Your task to perform on an android device: Open my contact list Image 0: 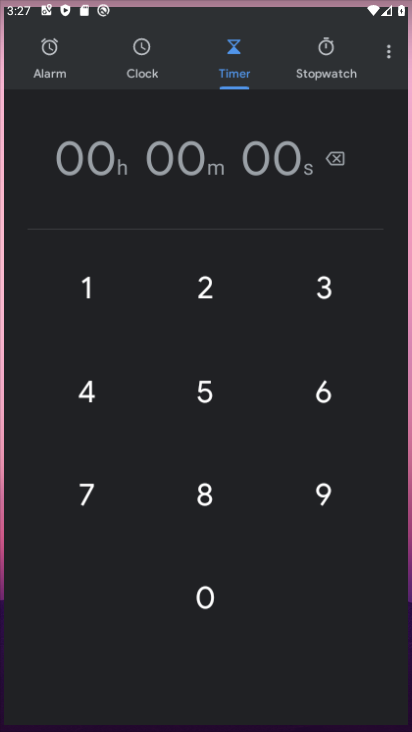
Step 0: drag from (224, 638) to (286, 336)
Your task to perform on an android device: Open my contact list Image 1: 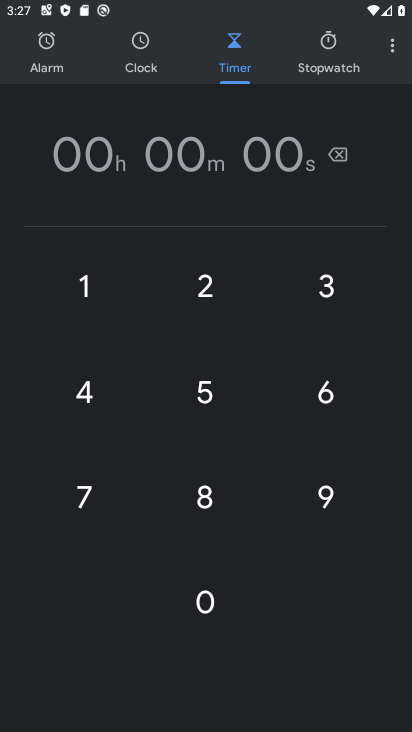
Step 1: press home button
Your task to perform on an android device: Open my contact list Image 2: 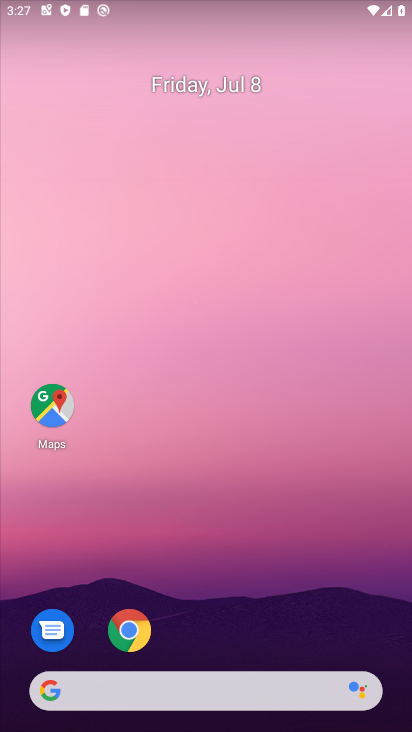
Step 2: drag from (254, 626) to (279, 200)
Your task to perform on an android device: Open my contact list Image 3: 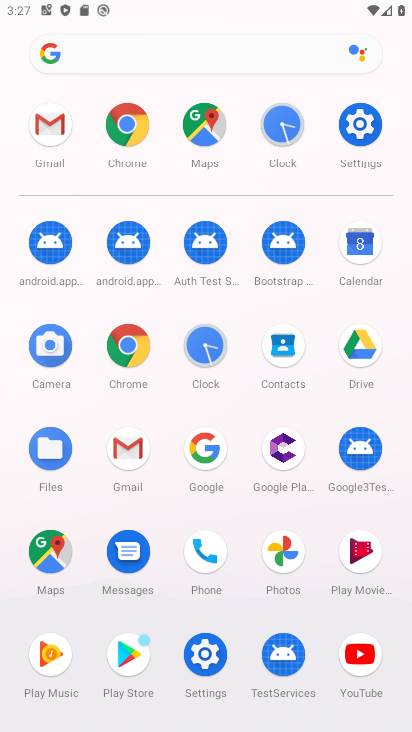
Step 3: click (293, 354)
Your task to perform on an android device: Open my contact list Image 4: 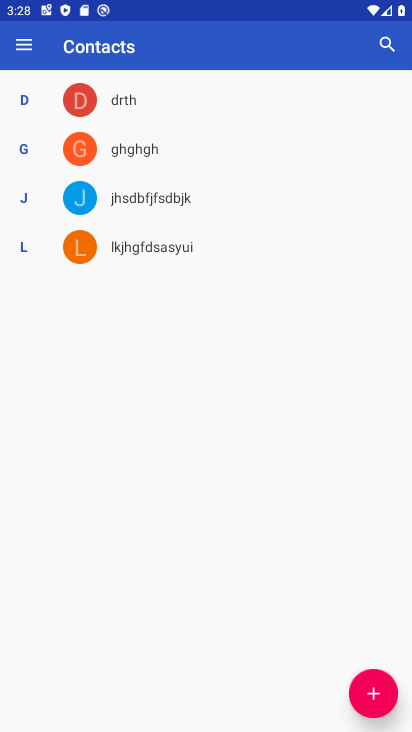
Step 4: task complete